Your task to perform on an android device: What's on my calendar tomorrow? Image 0: 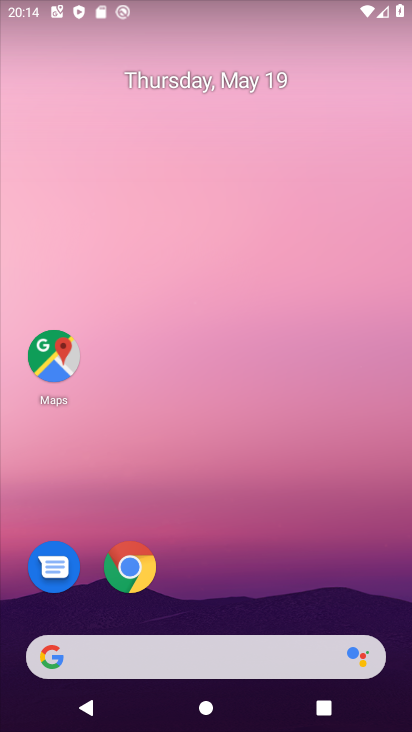
Step 0: click (246, 238)
Your task to perform on an android device: What's on my calendar tomorrow? Image 1: 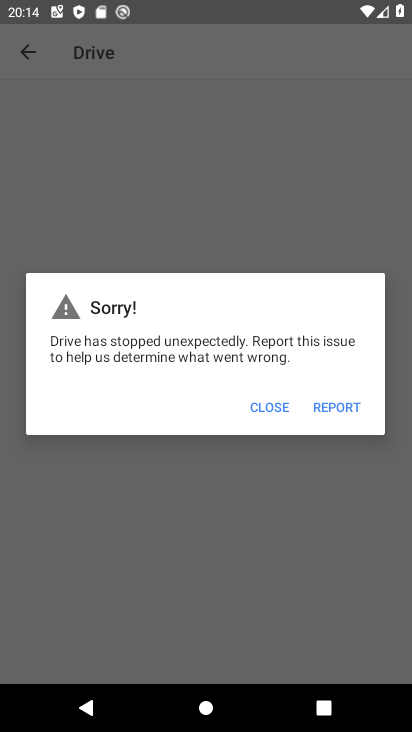
Step 1: press home button
Your task to perform on an android device: What's on my calendar tomorrow? Image 2: 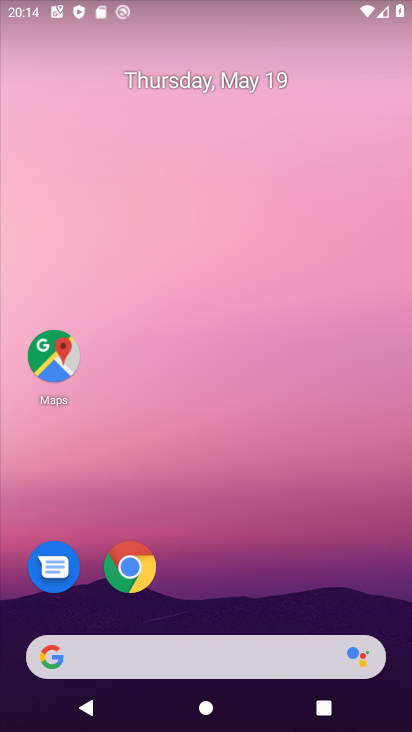
Step 2: drag from (185, 596) to (224, 69)
Your task to perform on an android device: What's on my calendar tomorrow? Image 3: 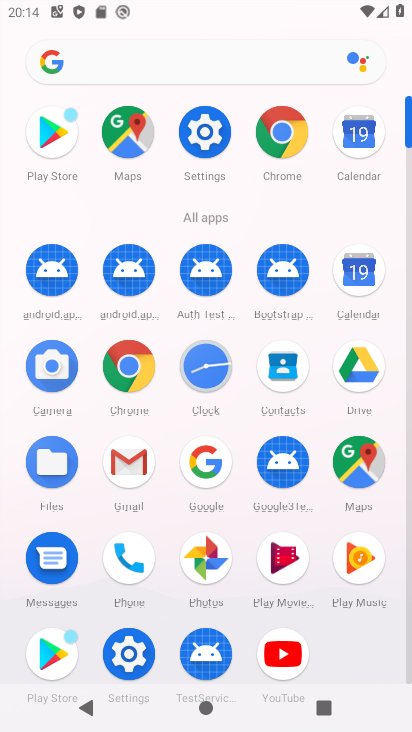
Step 3: click (356, 287)
Your task to perform on an android device: What's on my calendar tomorrow? Image 4: 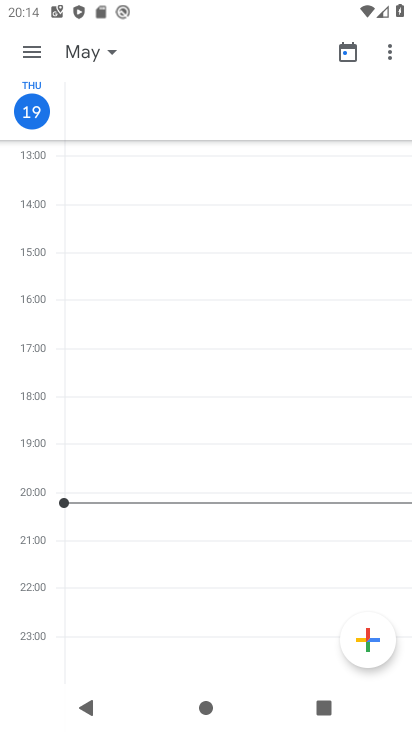
Step 4: click (29, 58)
Your task to perform on an android device: What's on my calendar tomorrow? Image 5: 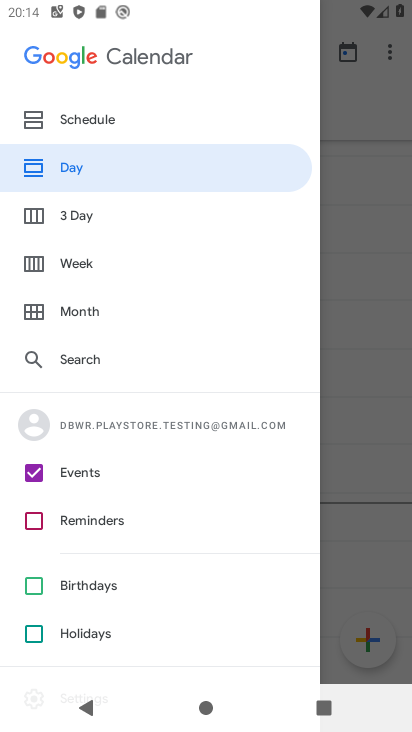
Step 5: click (86, 223)
Your task to perform on an android device: What's on my calendar tomorrow? Image 6: 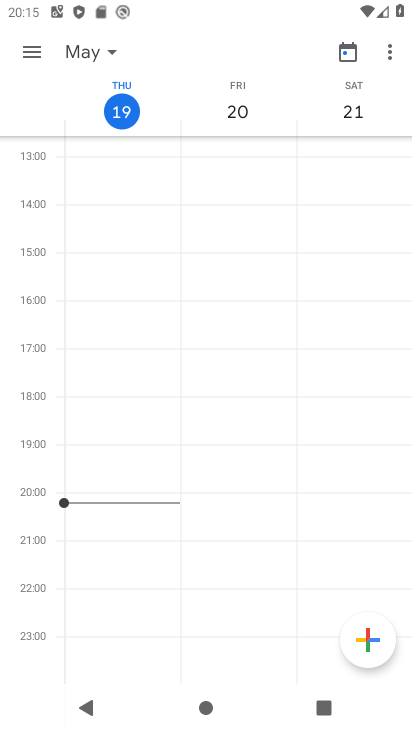
Step 6: task complete